Your task to perform on an android device: Open display settings Image 0: 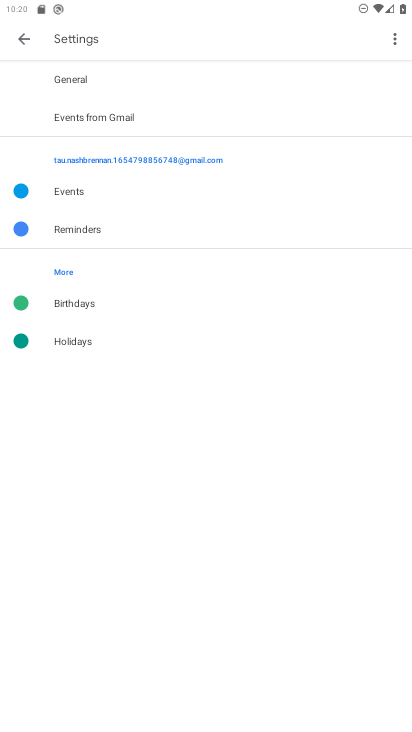
Step 0: press home button
Your task to perform on an android device: Open display settings Image 1: 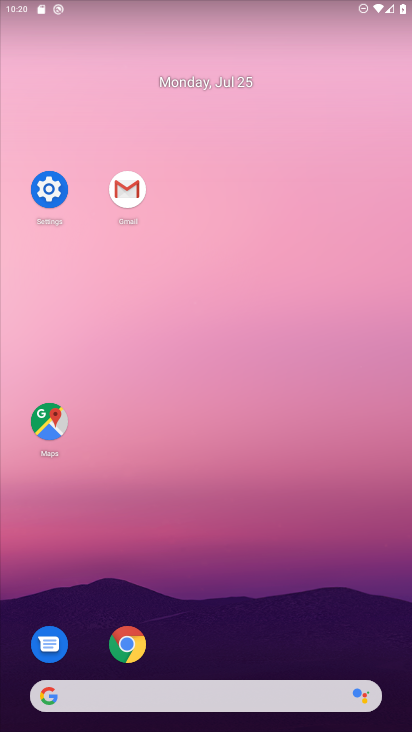
Step 1: click (64, 187)
Your task to perform on an android device: Open display settings Image 2: 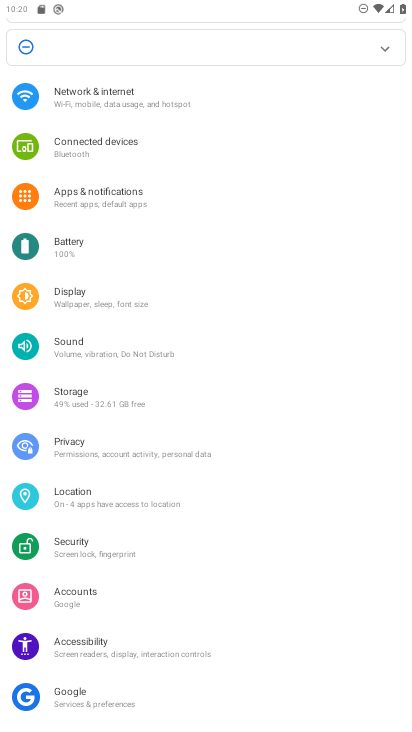
Step 2: click (149, 292)
Your task to perform on an android device: Open display settings Image 3: 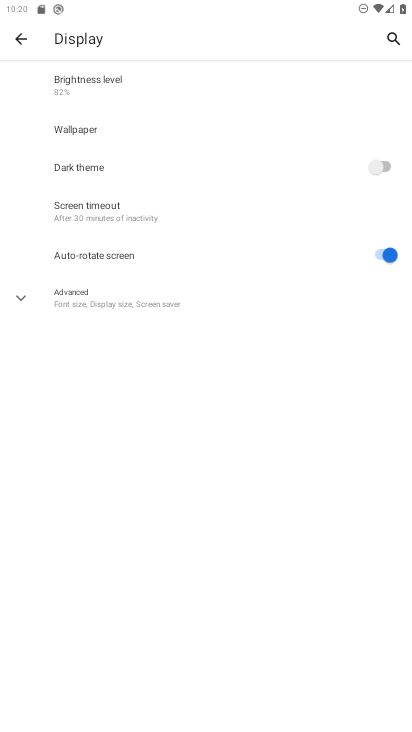
Step 3: task complete